Your task to perform on an android device: delete browsing data in the chrome app Image 0: 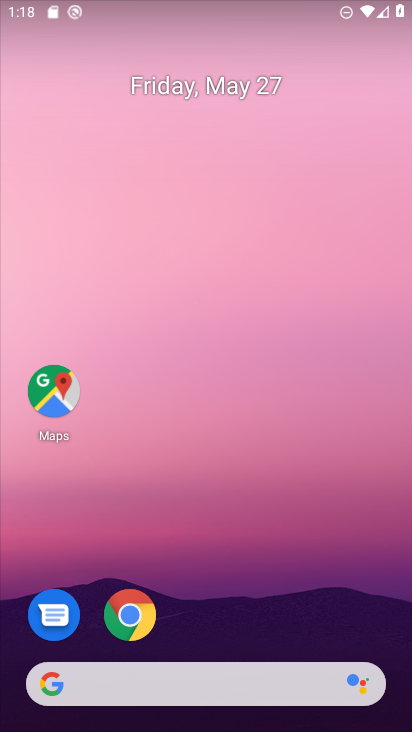
Step 0: drag from (212, 637) to (190, 212)
Your task to perform on an android device: delete browsing data in the chrome app Image 1: 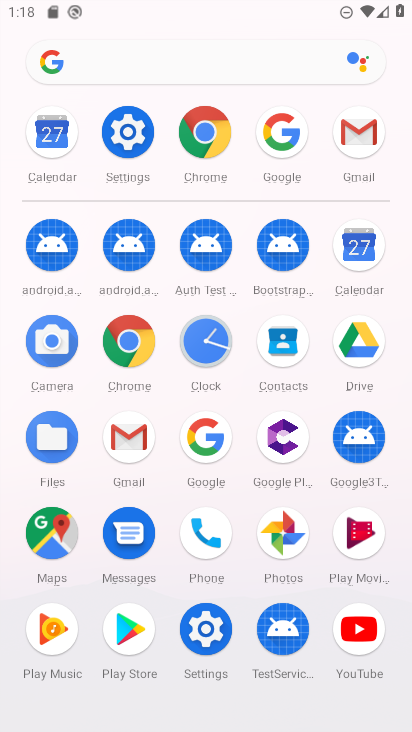
Step 1: click (136, 362)
Your task to perform on an android device: delete browsing data in the chrome app Image 2: 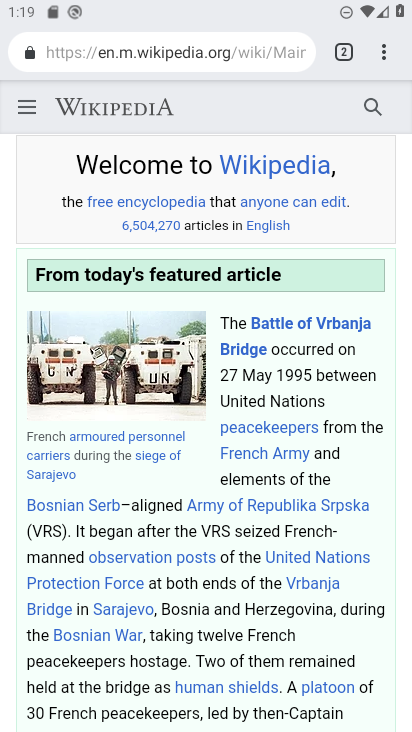
Step 2: click (383, 45)
Your task to perform on an android device: delete browsing data in the chrome app Image 3: 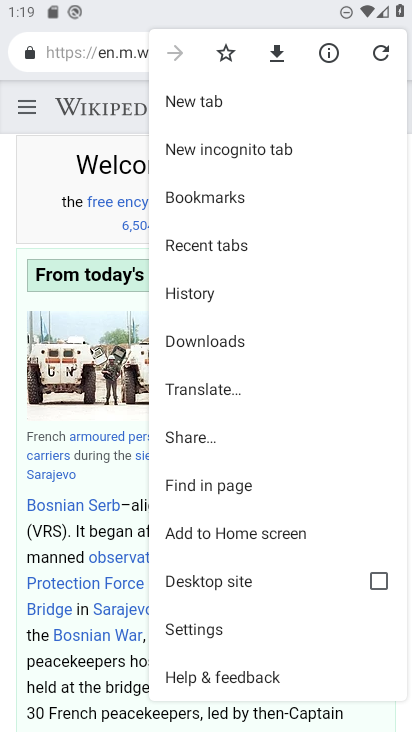
Step 3: click (213, 290)
Your task to perform on an android device: delete browsing data in the chrome app Image 4: 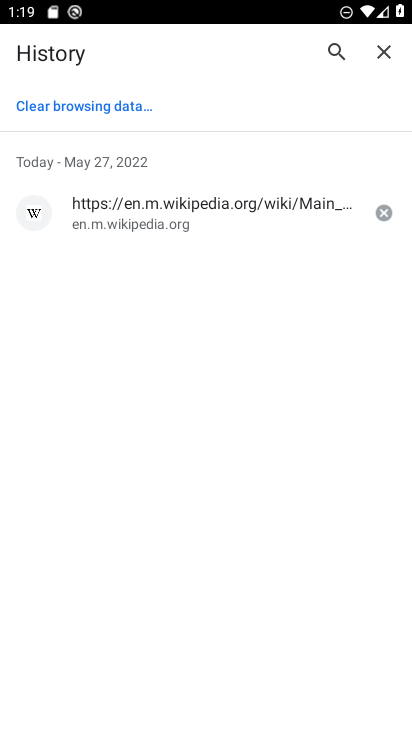
Step 4: click (129, 112)
Your task to perform on an android device: delete browsing data in the chrome app Image 5: 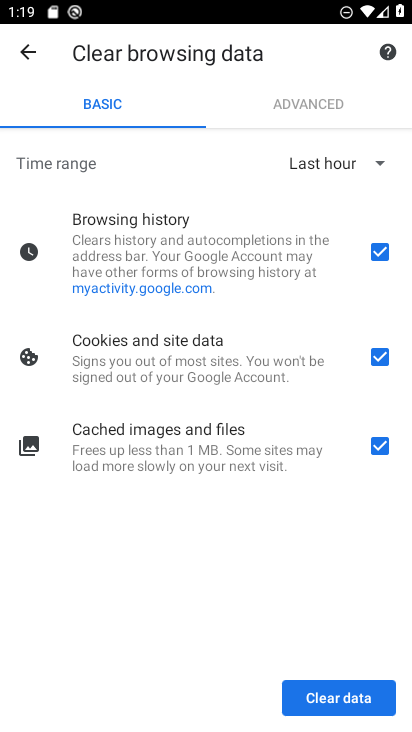
Step 5: click (342, 700)
Your task to perform on an android device: delete browsing data in the chrome app Image 6: 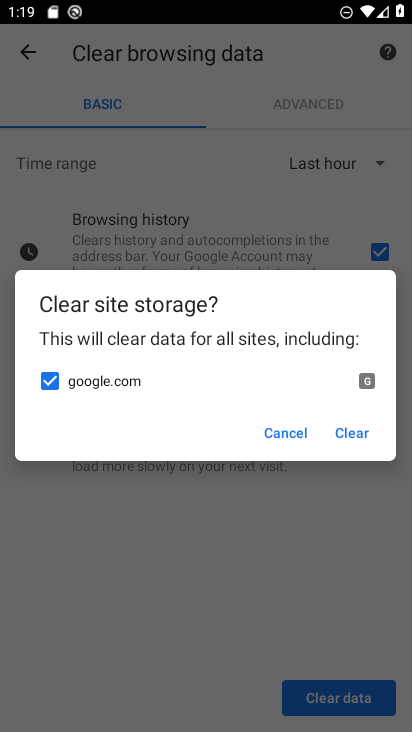
Step 6: click (347, 429)
Your task to perform on an android device: delete browsing data in the chrome app Image 7: 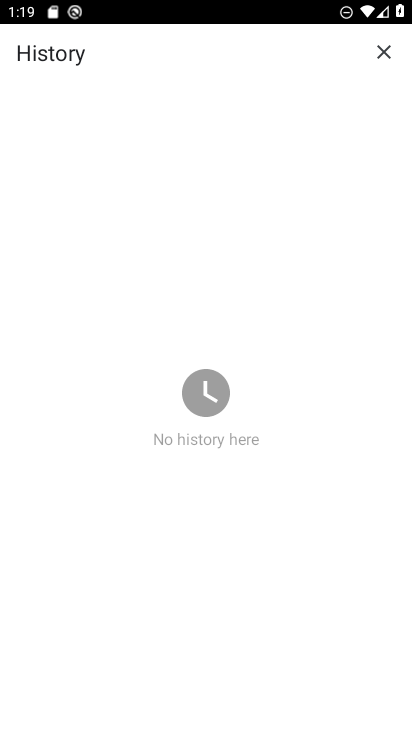
Step 7: task complete